Your task to perform on an android device: Add "logitech g933" to the cart on amazon, then select checkout. Image 0: 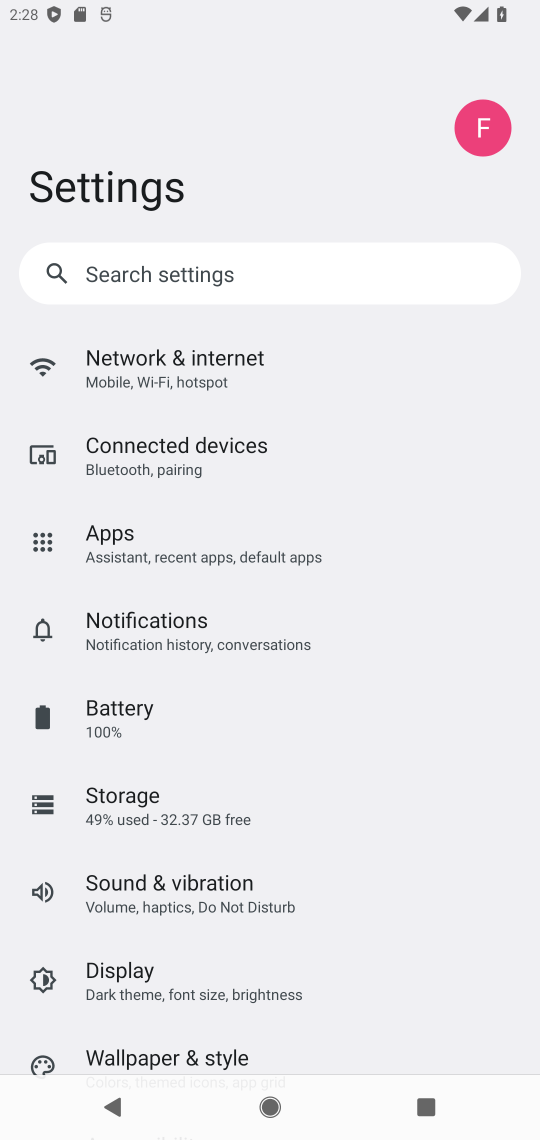
Step 0: press home button
Your task to perform on an android device: Add "logitech g933" to the cart on amazon, then select checkout. Image 1: 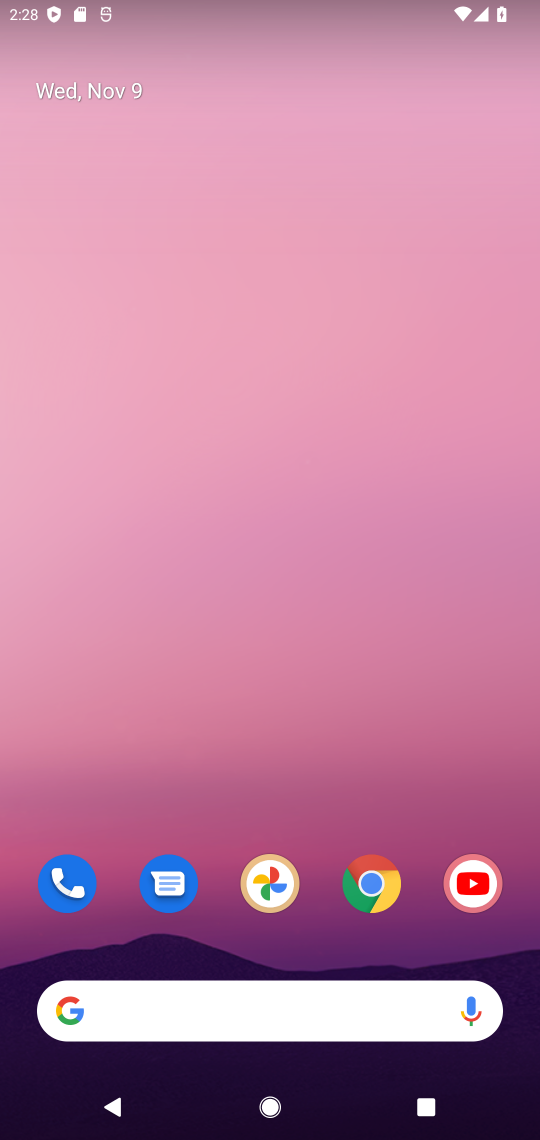
Step 1: click (372, 885)
Your task to perform on an android device: Add "logitech g933" to the cart on amazon, then select checkout. Image 2: 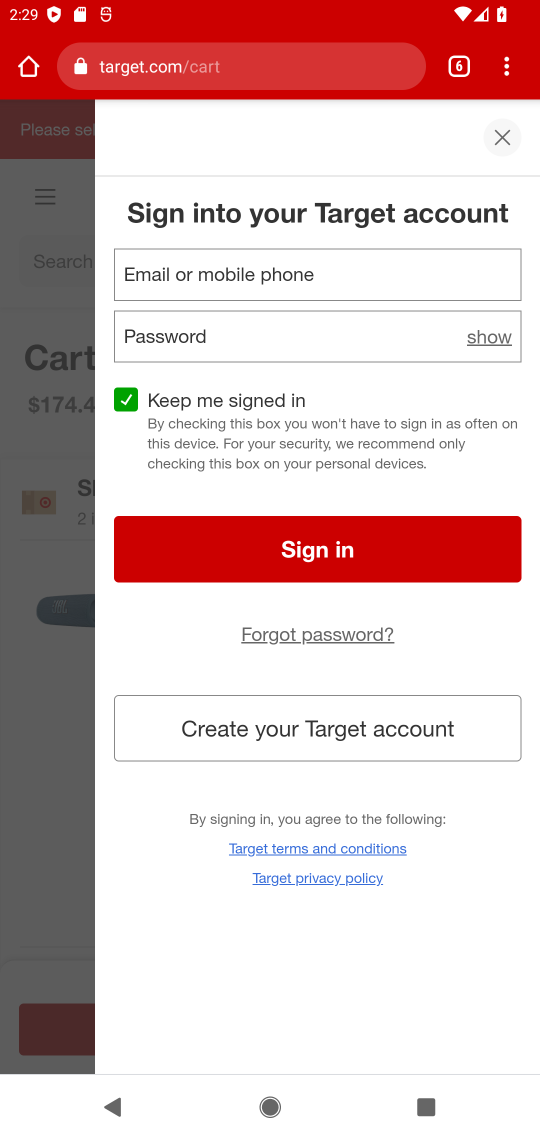
Step 2: click (495, 142)
Your task to perform on an android device: Add "logitech g933" to the cart on amazon, then select checkout. Image 3: 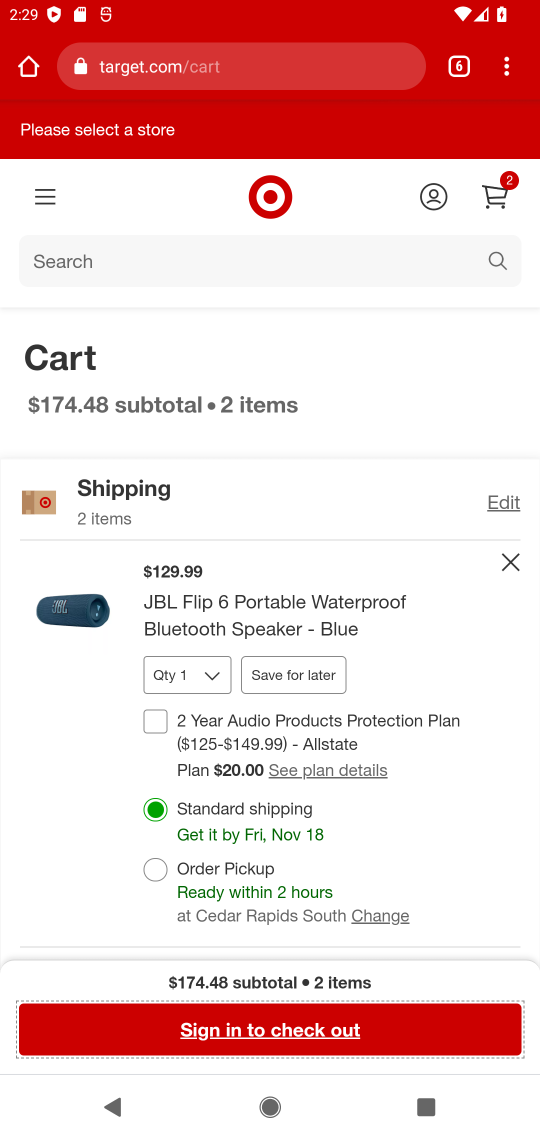
Step 3: click (458, 60)
Your task to perform on an android device: Add "logitech g933" to the cart on amazon, then select checkout. Image 4: 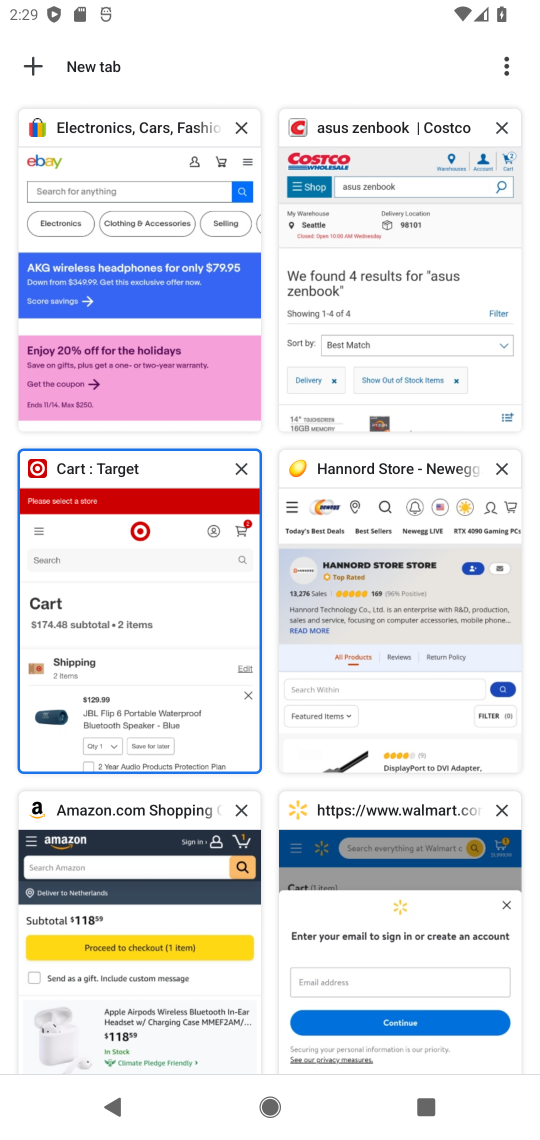
Step 4: click (124, 943)
Your task to perform on an android device: Add "logitech g933" to the cart on amazon, then select checkout. Image 5: 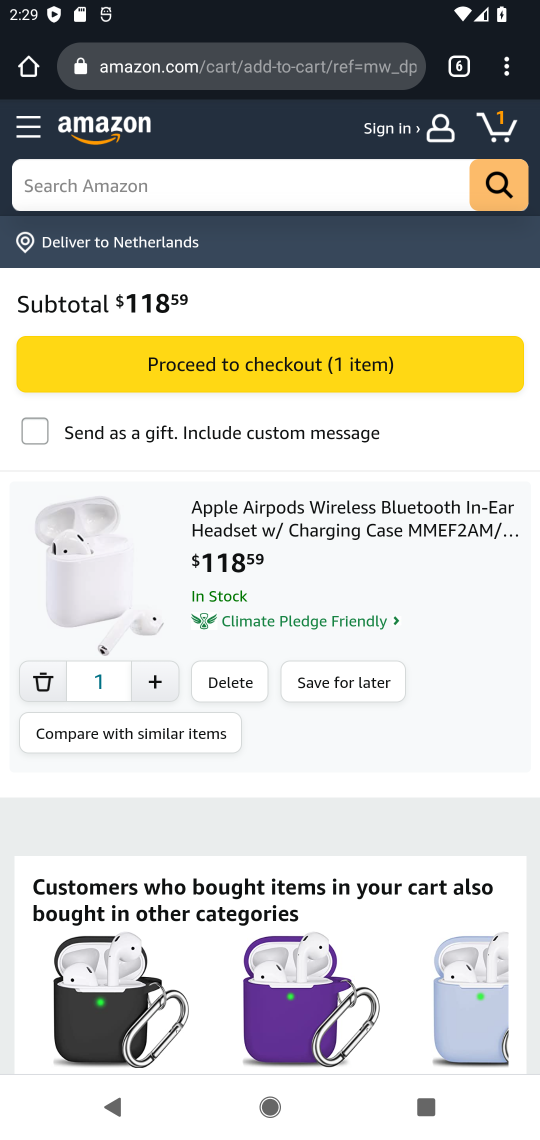
Step 5: click (149, 173)
Your task to perform on an android device: Add "logitech g933" to the cart on amazon, then select checkout. Image 6: 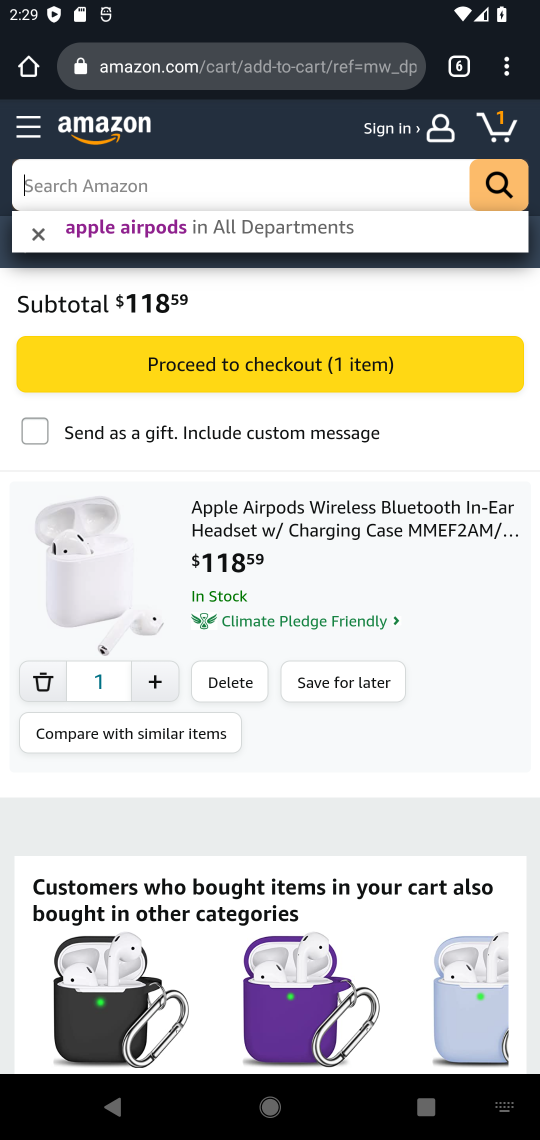
Step 6: click (149, 173)
Your task to perform on an android device: Add "logitech g933" to the cart on amazon, then select checkout. Image 7: 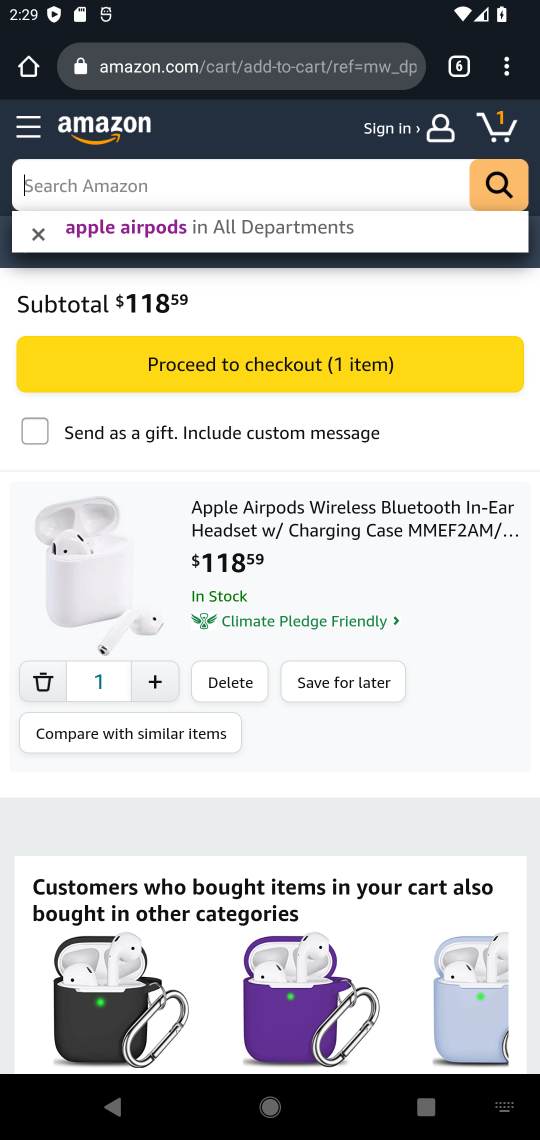
Step 7: type "logitech g933"
Your task to perform on an android device: Add "logitech g933" to the cart on amazon, then select checkout. Image 8: 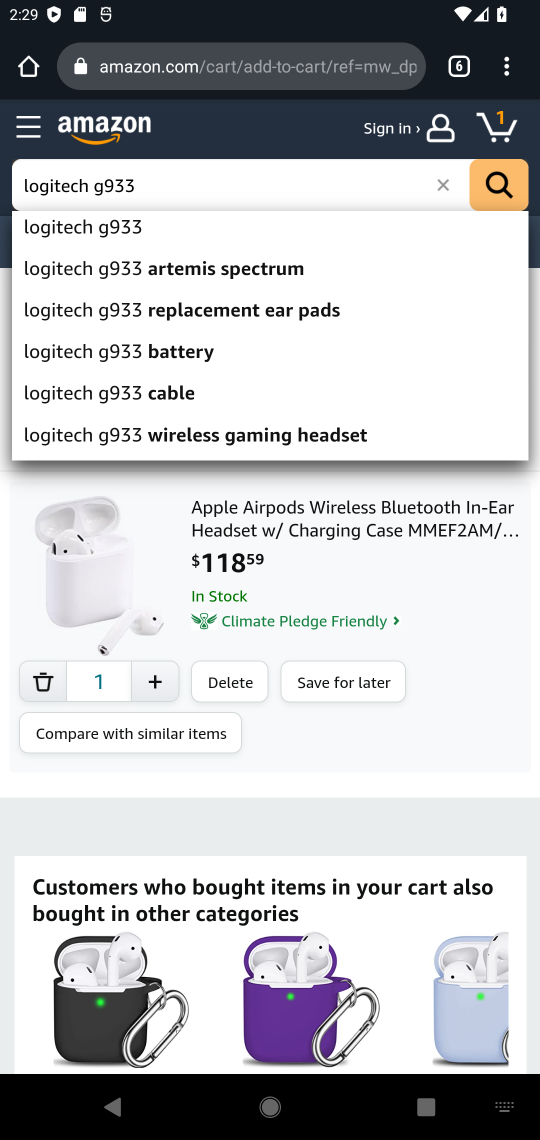
Step 8: click (106, 228)
Your task to perform on an android device: Add "logitech g933" to the cart on amazon, then select checkout. Image 9: 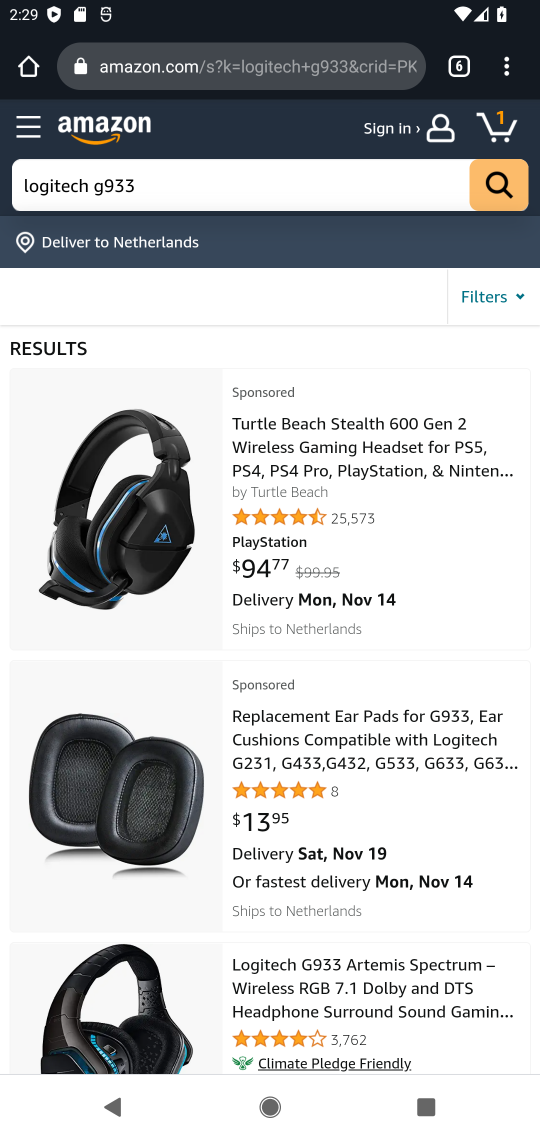
Step 9: click (367, 997)
Your task to perform on an android device: Add "logitech g933" to the cart on amazon, then select checkout. Image 10: 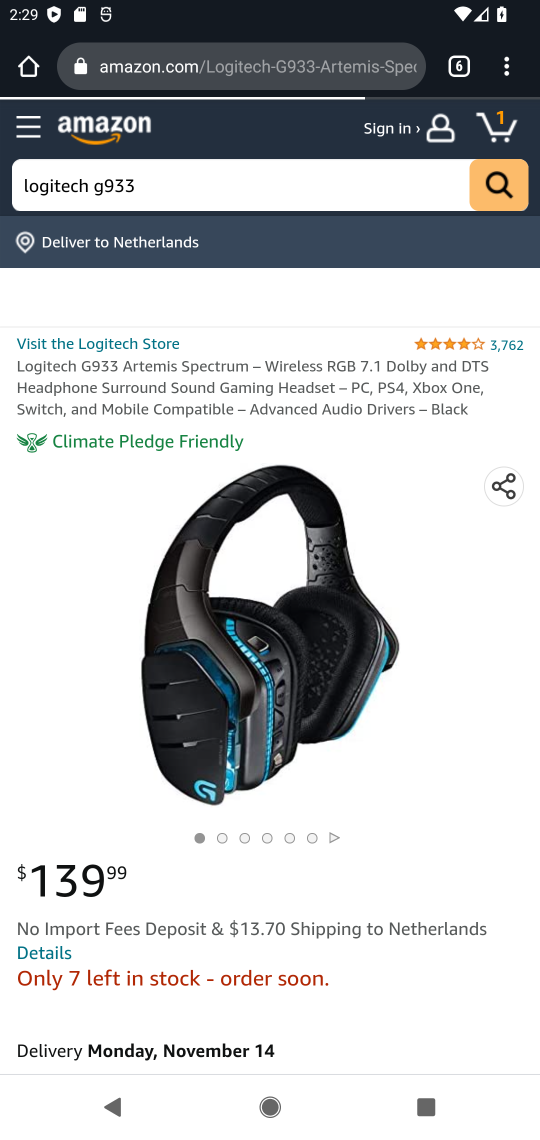
Step 10: drag from (372, 982) to (515, 403)
Your task to perform on an android device: Add "logitech g933" to the cart on amazon, then select checkout. Image 11: 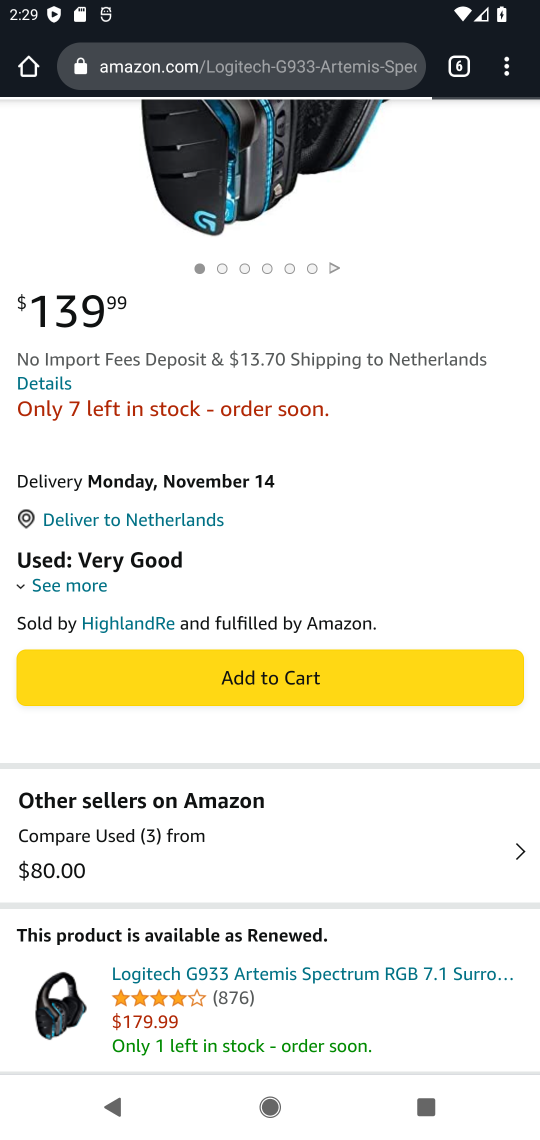
Step 11: click (317, 676)
Your task to perform on an android device: Add "logitech g933" to the cart on amazon, then select checkout. Image 12: 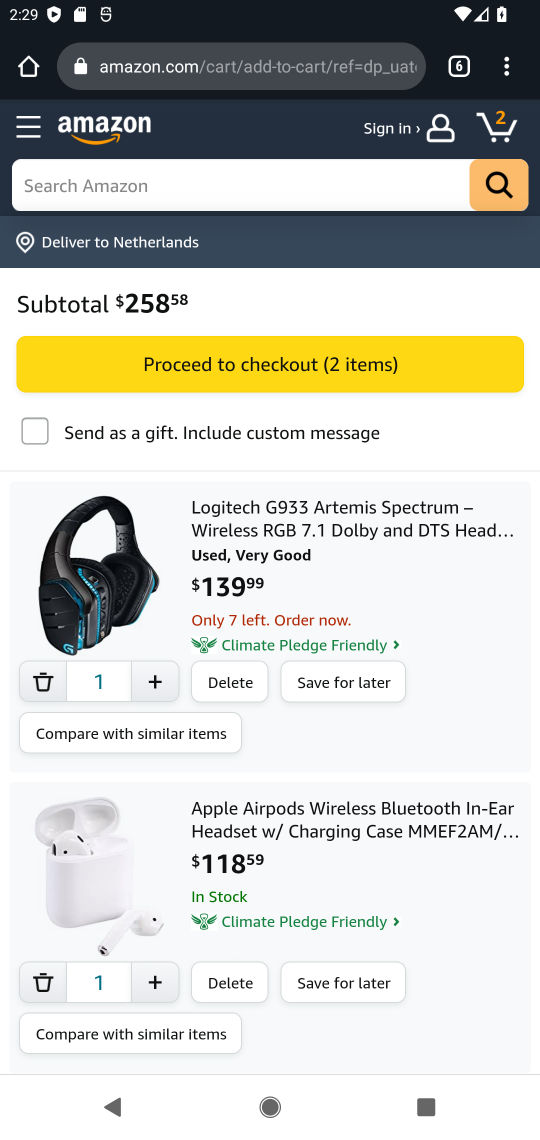
Step 12: click (368, 372)
Your task to perform on an android device: Add "logitech g933" to the cart on amazon, then select checkout. Image 13: 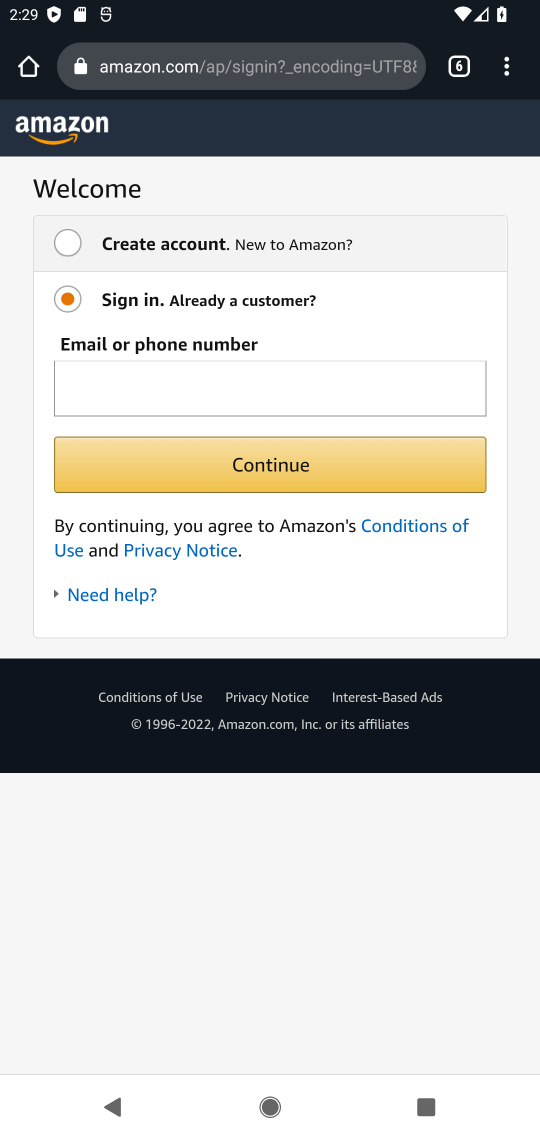
Step 13: task complete